Your task to perform on an android device: toggle priority inbox in the gmail app Image 0: 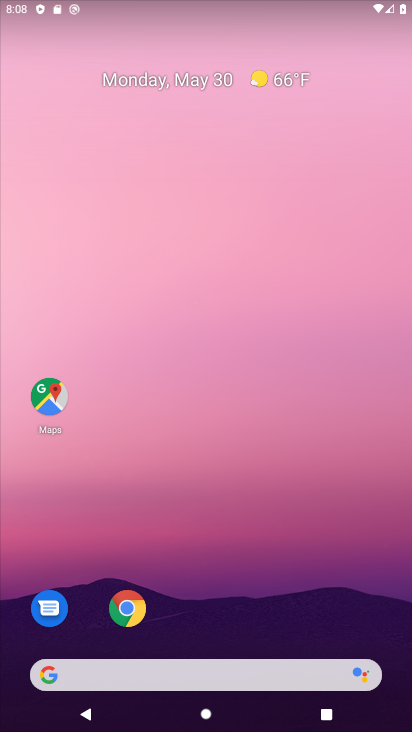
Step 0: drag from (245, 724) to (173, 33)
Your task to perform on an android device: toggle priority inbox in the gmail app Image 1: 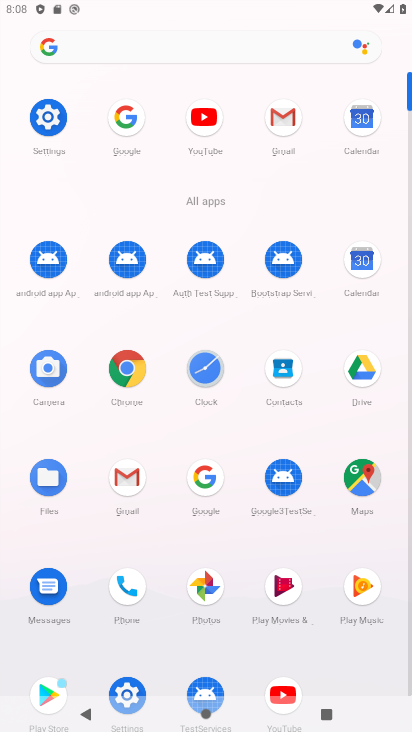
Step 1: click (128, 481)
Your task to perform on an android device: toggle priority inbox in the gmail app Image 2: 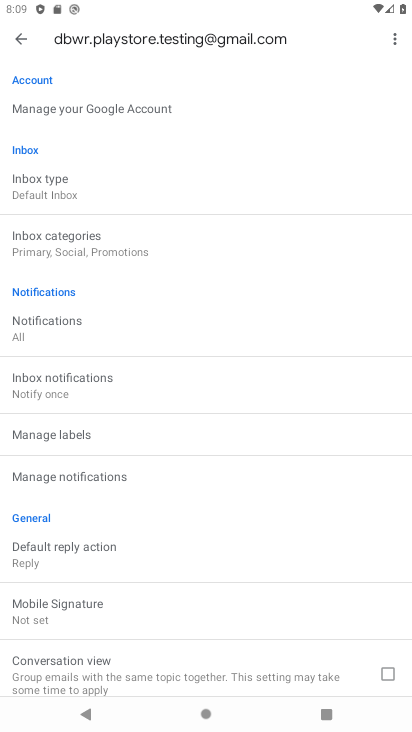
Step 2: click (52, 185)
Your task to perform on an android device: toggle priority inbox in the gmail app Image 3: 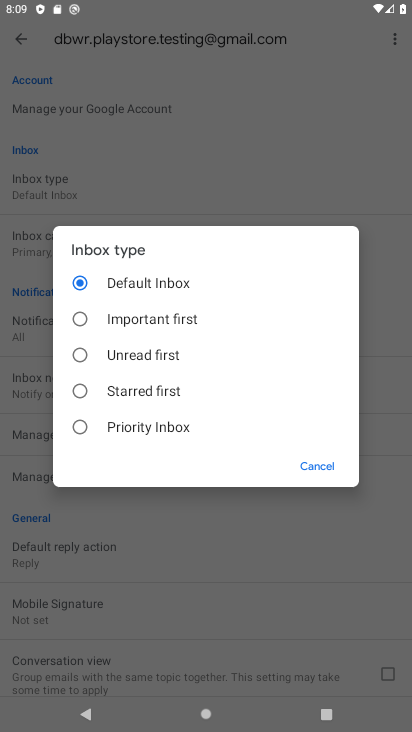
Step 3: click (82, 428)
Your task to perform on an android device: toggle priority inbox in the gmail app Image 4: 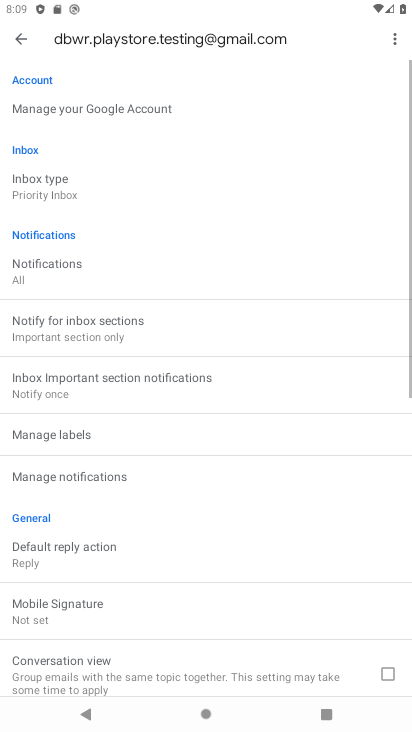
Step 4: task complete